Your task to perform on an android device: Go to battery settings Image 0: 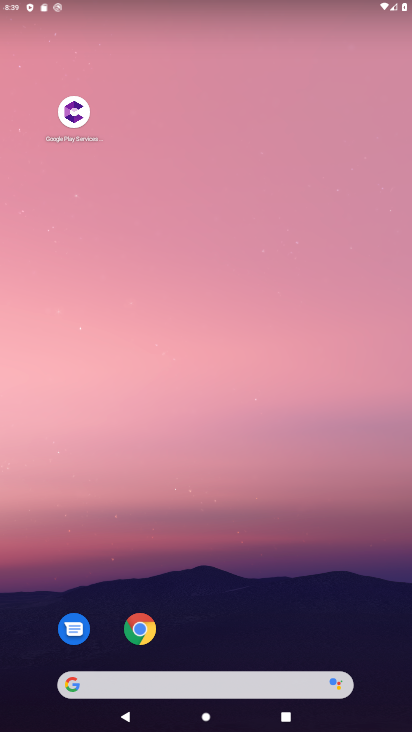
Step 0: drag from (220, 628) to (191, 86)
Your task to perform on an android device: Go to battery settings Image 1: 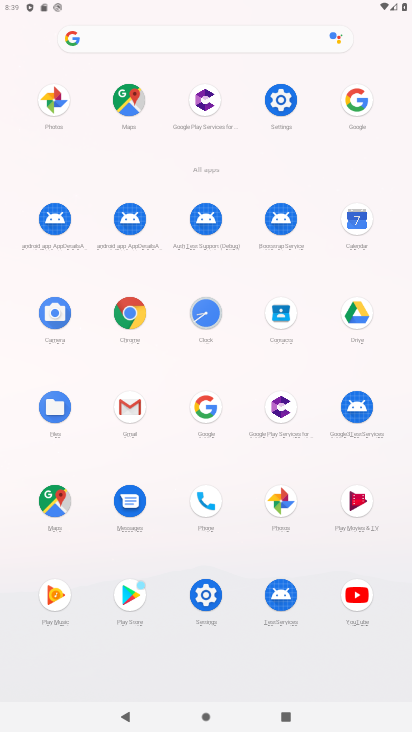
Step 1: click (274, 100)
Your task to perform on an android device: Go to battery settings Image 2: 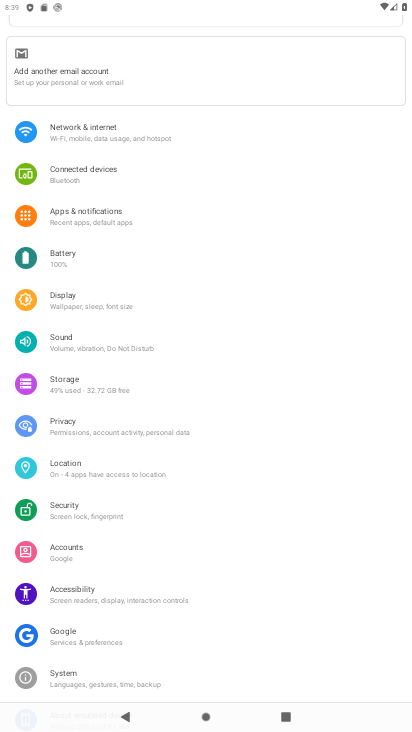
Step 2: click (77, 251)
Your task to perform on an android device: Go to battery settings Image 3: 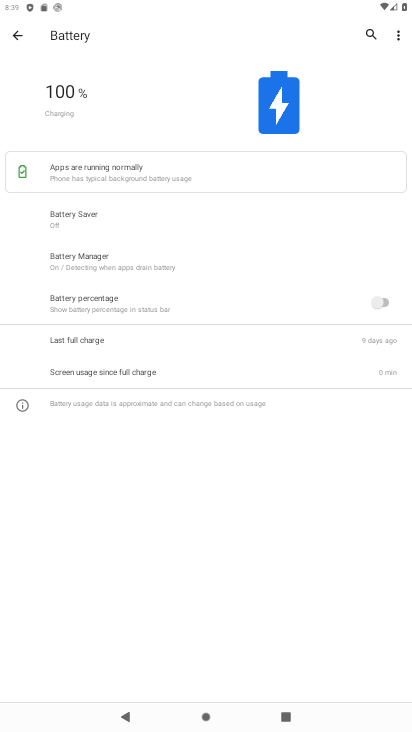
Step 3: task complete